Your task to perform on an android device: Open wifi settings Image 0: 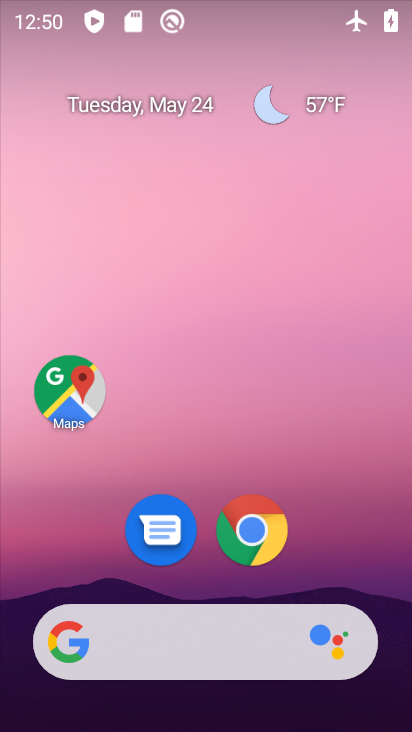
Step 0: drag from (207, 569) to (203, 187)
Your task to perform on an android device: Open wifi settings Image 1: 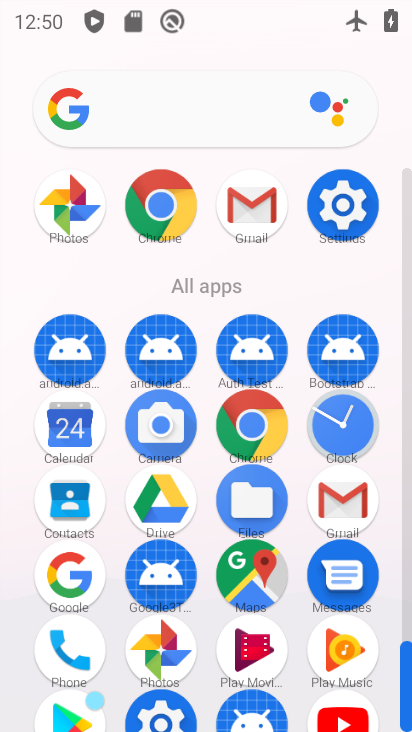
Step 1: click (346, 210)
Your task to perform on an android device: Open wifi settings Image 2: 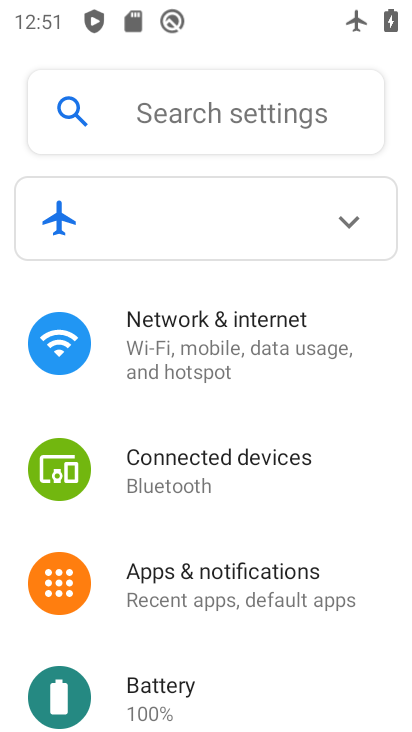
Step 2: click (186, 355)
Your task to perform on an android device: Open wifi settings Image 3: 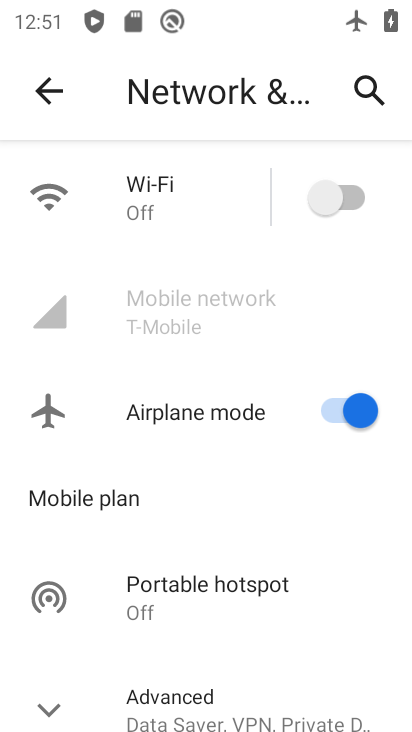
Step 3: click (153, 211)
Your task to perform on an android device: Open wifi settings Image 4: 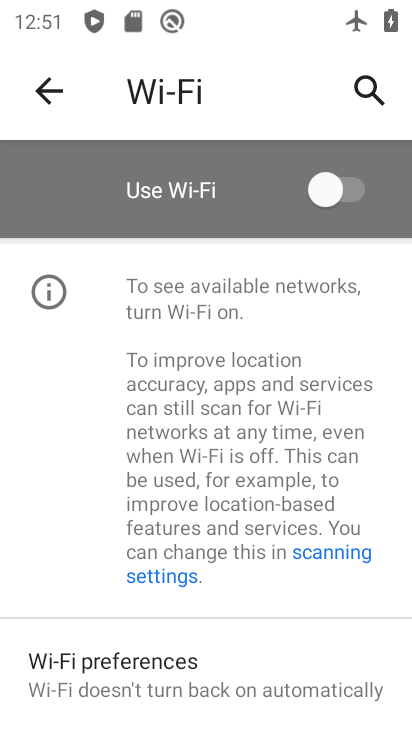
Step 4: task complete